Your task to perform on an android device: What's a good restaurant in Dallas? Image 0: 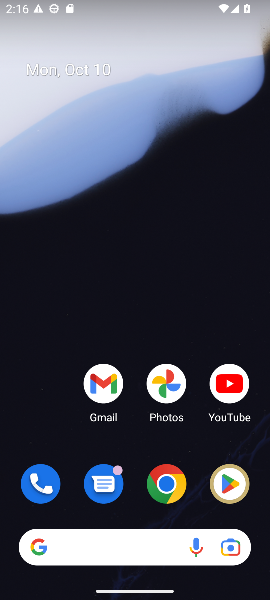
Step 0: click (174, 483)
Your task to perform on an android device: What's a good restaurant in Dallas? Image 1: 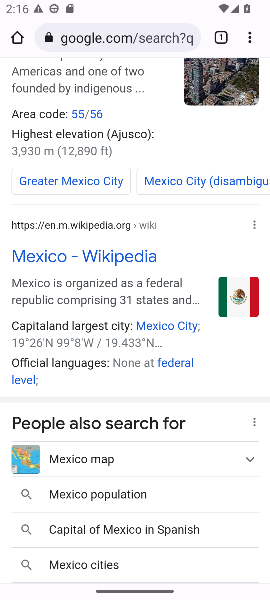
Step 1: click (150, 45)
Your task to perform on an android device: What's a good restaurant in Dallas? Image 2: 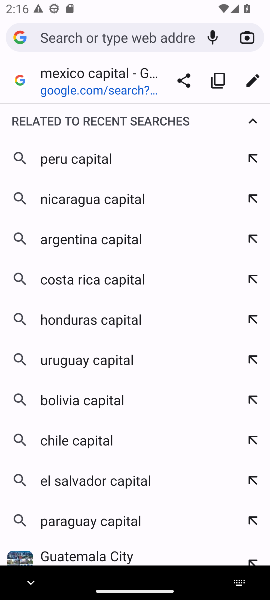
Step 2: type "good restaurant in dallas"
Your task to perform on an android device: What's a good restaurant in Dallas? Image 3: 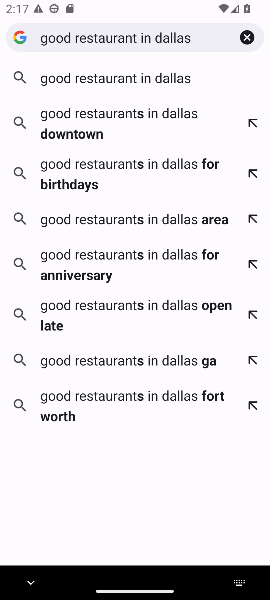
Step 3: click (158, 79)
Your task to perform on an android device: What's a good restaurant in Dallas? Image 4: 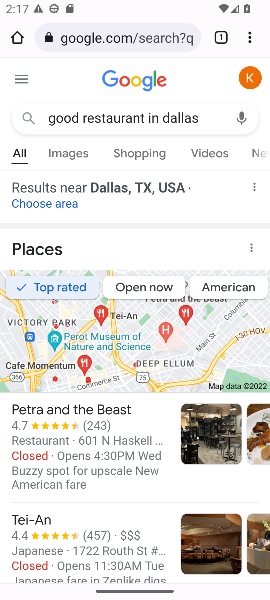
Step 4: task complete